Your task to perform on an android device: turn off airplane mode Image 0: 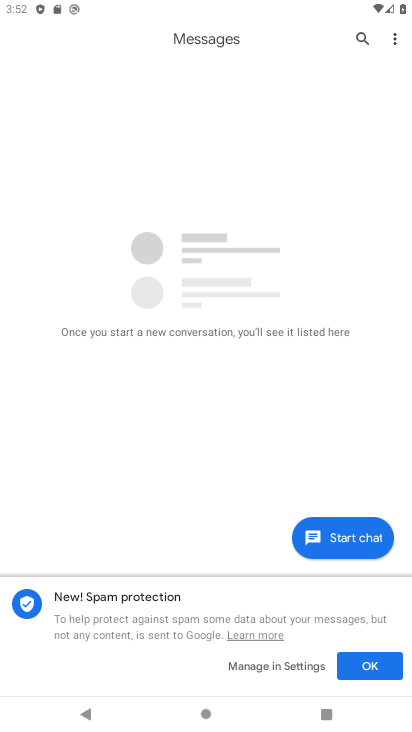
Step 0: click (48, 392)
Your task to perform on an android device: turn off airplane mode Image 1: 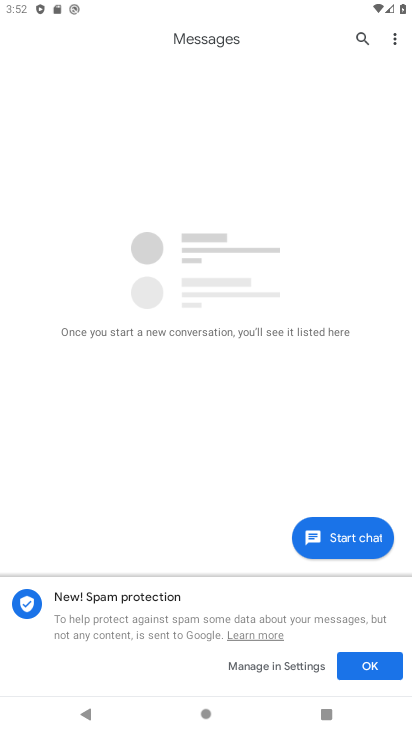
Step 1: press home button
Your task to perform on an android device: turn off airplane mode Image 2: 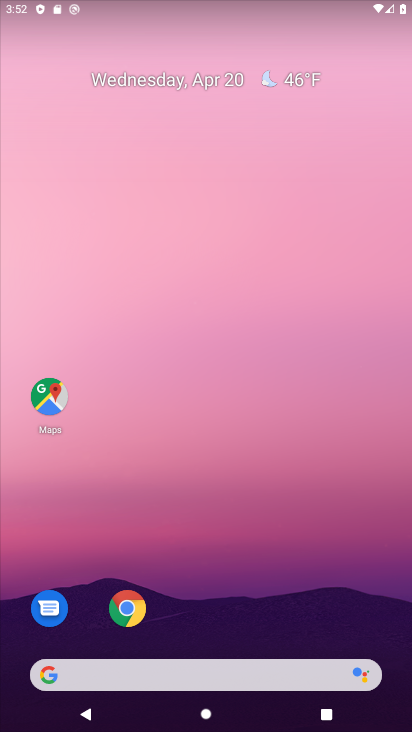
Step 2: drag from (189, 563) to (246, 113)
Your task to perform on an android device: turn off airplane mode Image 3: 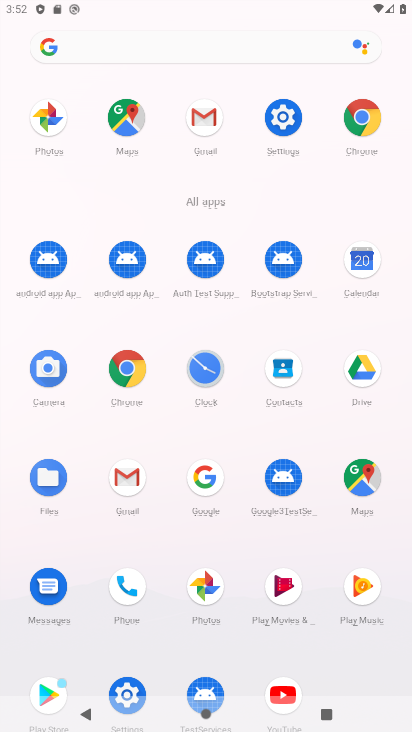
Step 3: click (127, 132)
Your task to perform on an android device: turn off airplane mode Image 4: 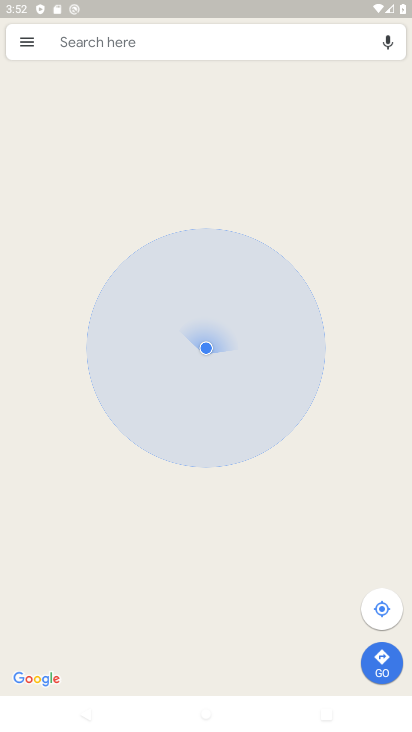
Step 4: click (386, 602)
Your task to perform on an android device: turn off airplane mode Image 5: 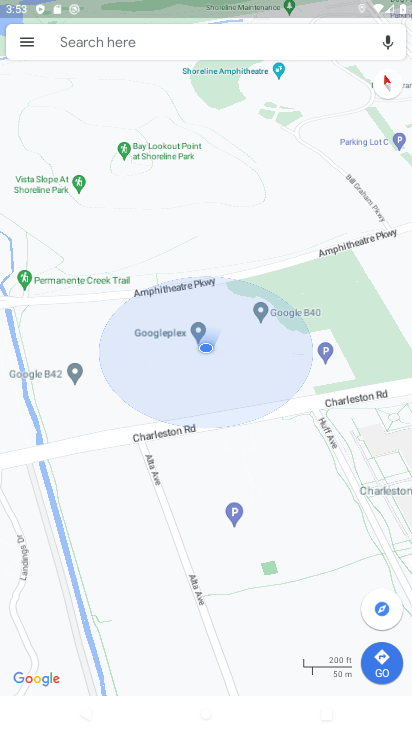
Step 5: task complete